Your task to perform on an android device: Open eBay Image 0: 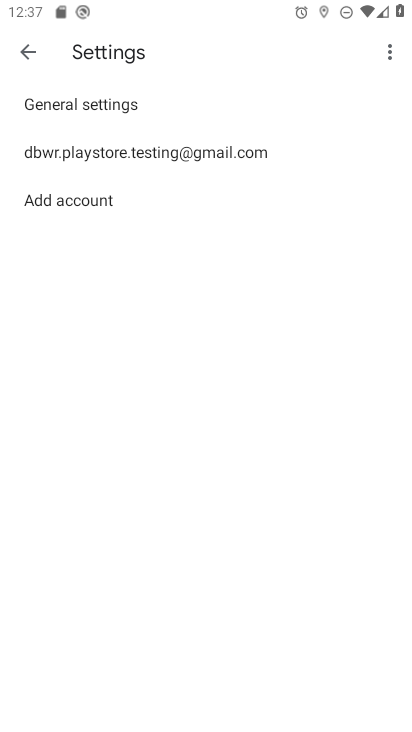
Step 0: press home button
Your task to perform on an android device: Open eBay Image 1: 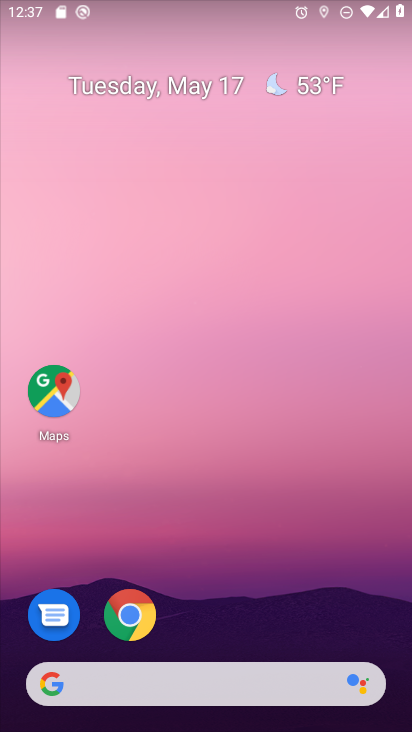
Step 1: click (142, 611)
Your task to perform on an android device: Open eBay Image 2: 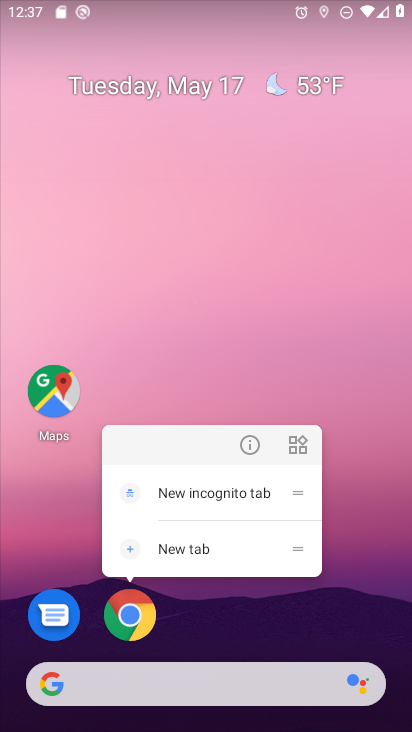
Step 2: click (142, 611)
Your task to perform on an android device: Open eBay Image 3: 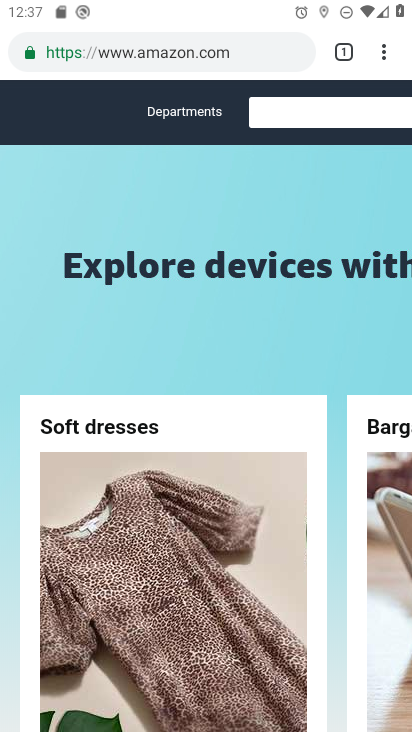
Step 3: click (347, 38)
Your task to perform on an android device: Open eBay Image 4: 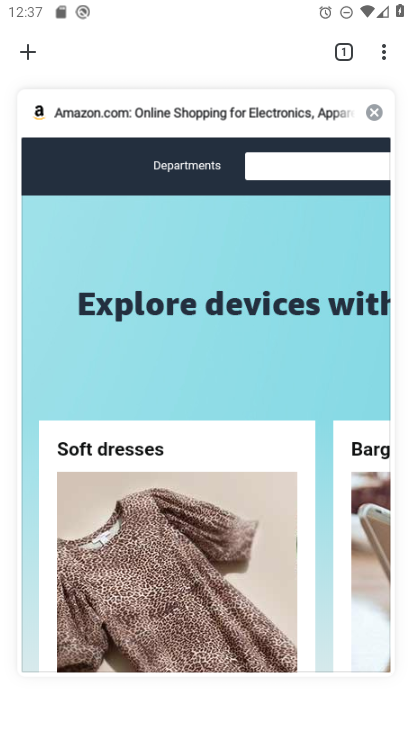
Step 4: click (366, 114)
Your task to perform on an android device: Open eBay Image 5: 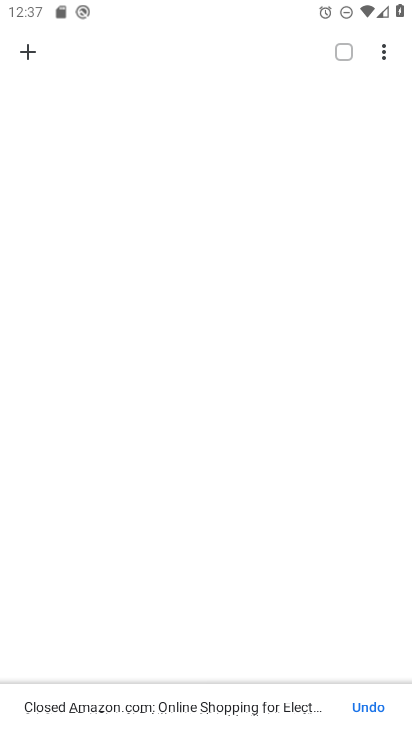
Step 5: click (19, 53)
Your task to perform on an android device: Open eBay Image 6: 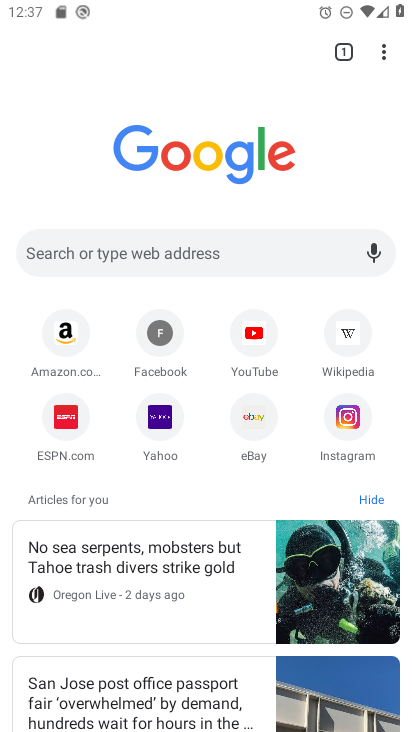
Step 6: click (254, 423)
Your task to perform on an android device: Open eBay Image 7: 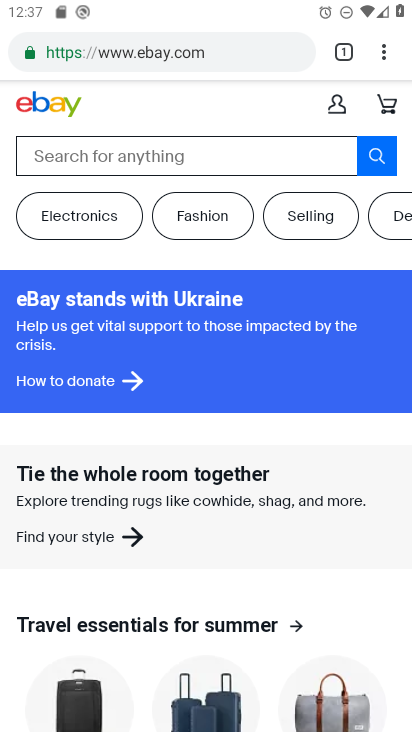
Step 7: task complete